Your task to perform on an android device: Go to display settings Image 0: 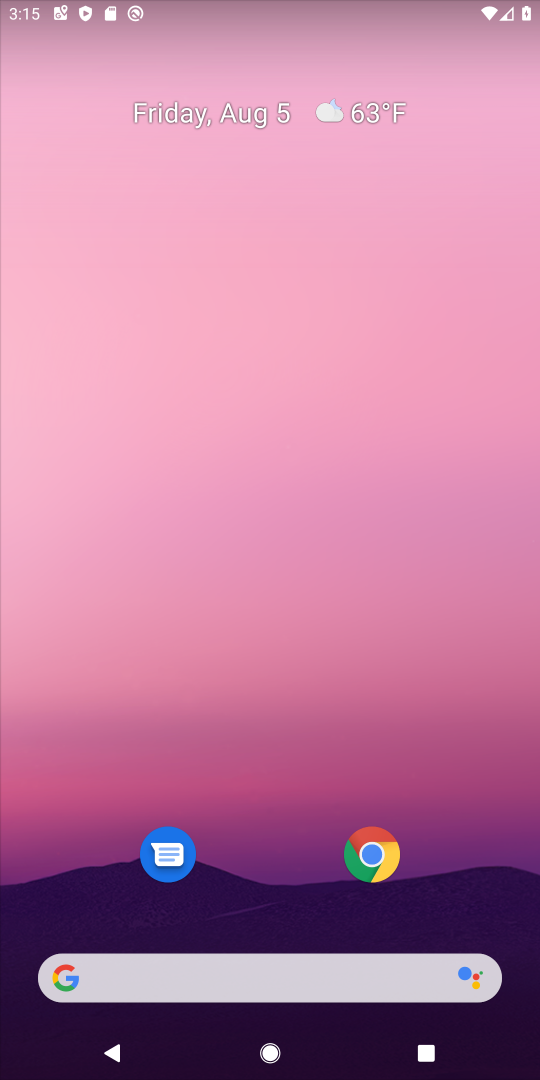
Step 0: press home button
Your task to perform on an android device: Go to display settings Image 1: 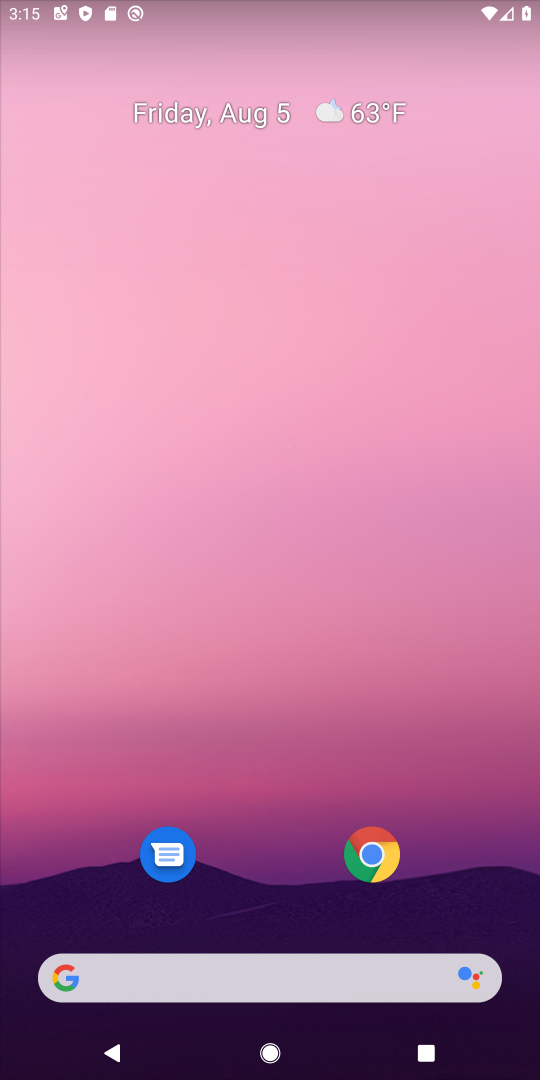
Step 1: drag from (60, 1010) to (491, 132)
Your task to perform on an android device: Go to display settings Image 2: 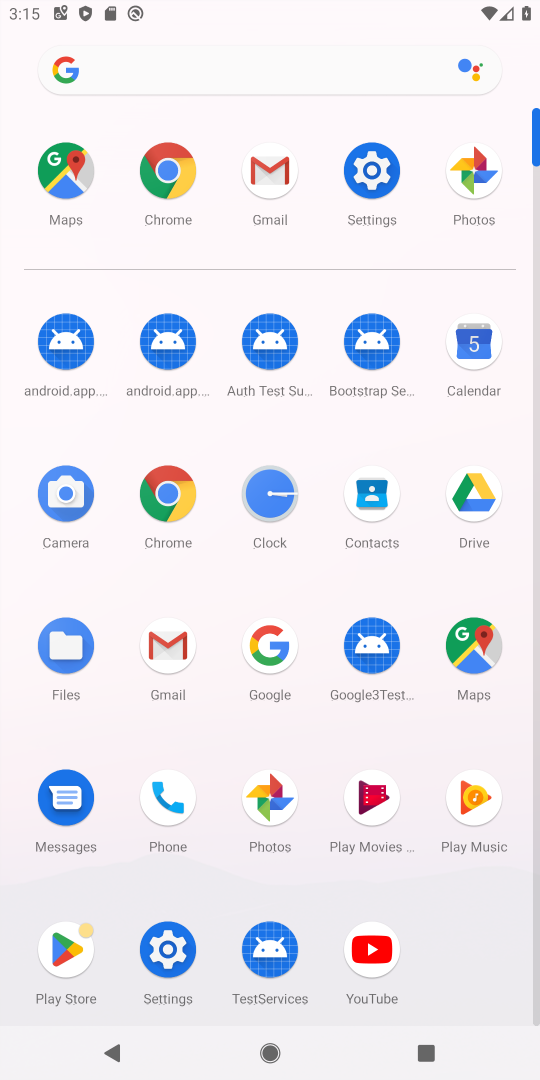
Step 2: click (157, 952)
Your task to perform on an android device: Go to display settings Image 3: 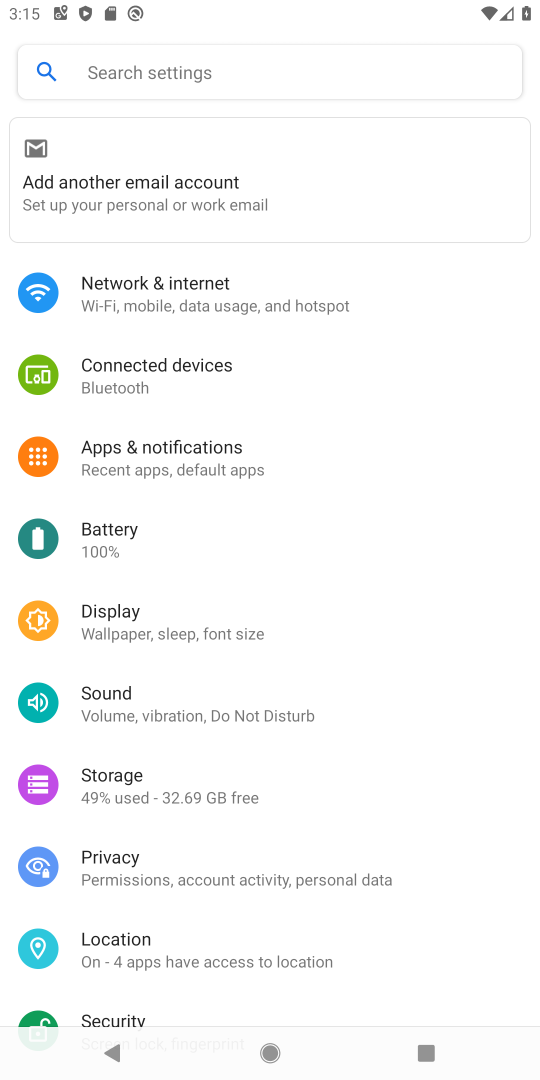
Step 3: click (131, 635)
Your task to perform on an android device: Go to display settings Image 4: 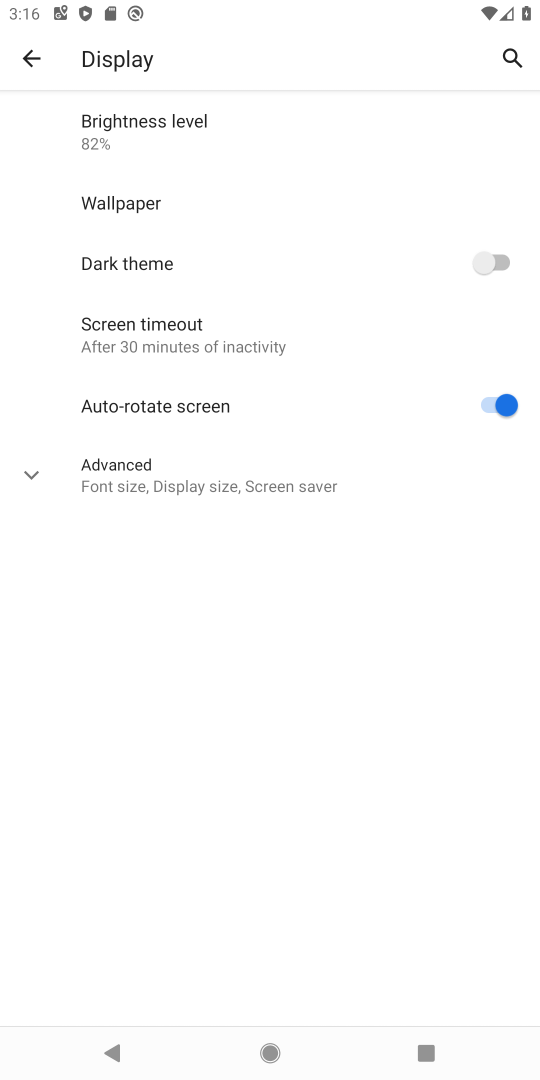
Step 4: task complete